Your task to perform on an android device: Open settings on Google Maps Image 0: 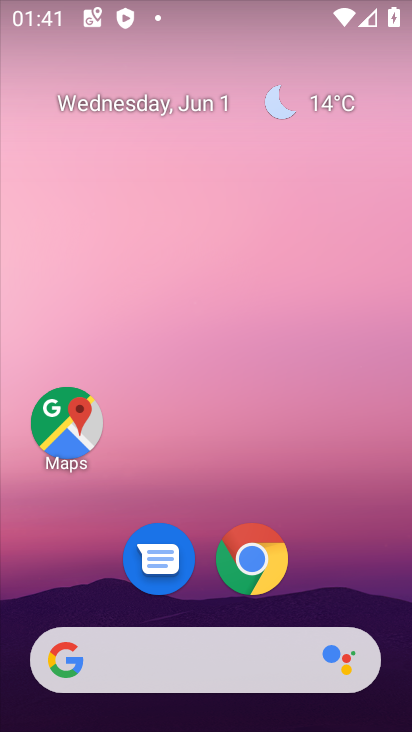
Step 0: click (60, 434)
Your task to perform on an android device: Open settings on Google Maps Image 1: 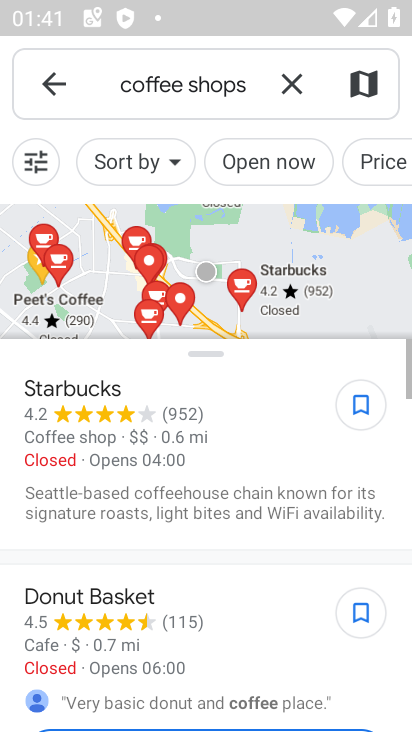
Step 1: click (46, 87)
Your task to perform on an android device: Open settings on Google Maps Image 2: 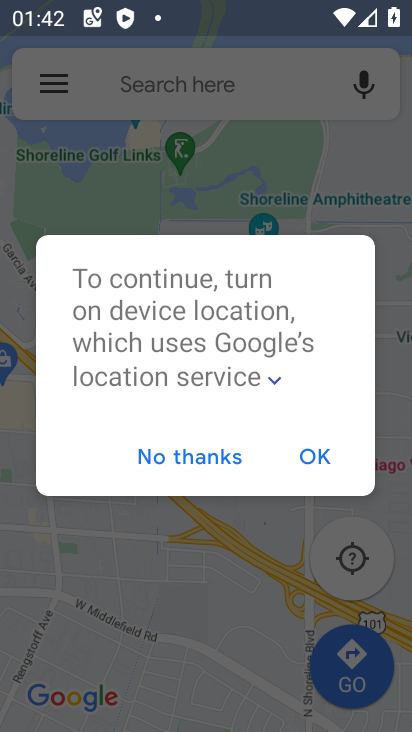
Step 2: click (295, 457)
Your task to perform on an android device: Open settings on Google Maps Image 3: 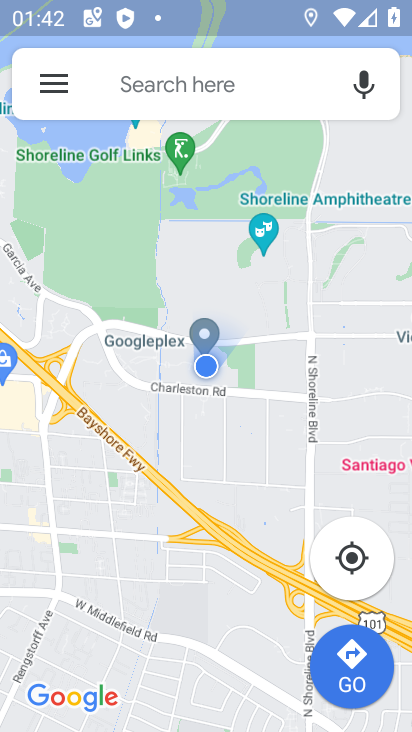
Step 3: click (48, 77)
Your task to perform on an android device: Open settings on Google Maps Image 4: 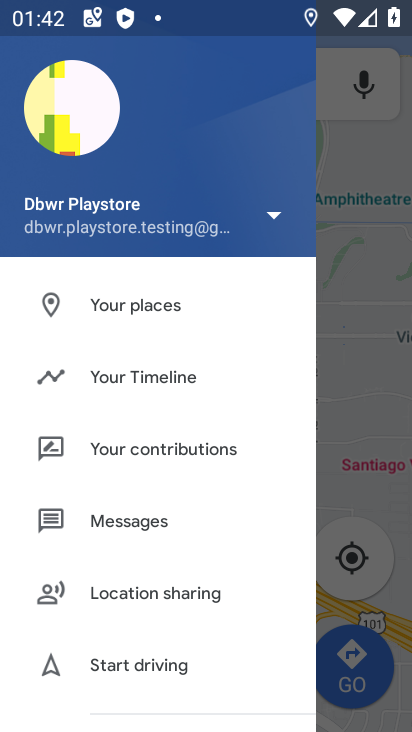
Step 4: drag from (200, 628) to (196, 335)
Your task to perform on an android device: Open settings on Google Maps Image 5: 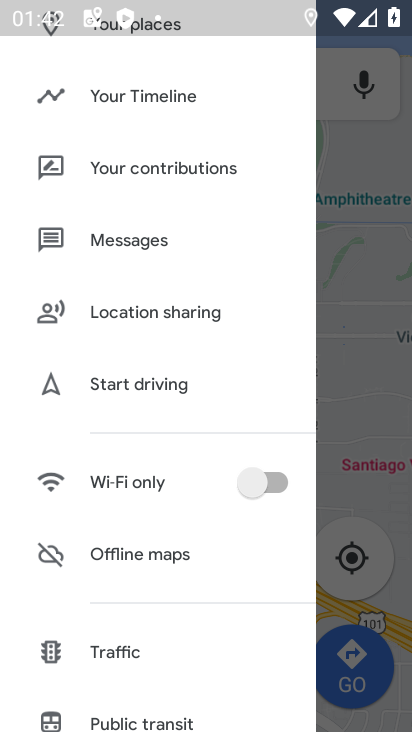
Step 5: drag from (151, 664) to (135, 343)
Your task to perform on an android device: Open settings on Google Maps Image 6: 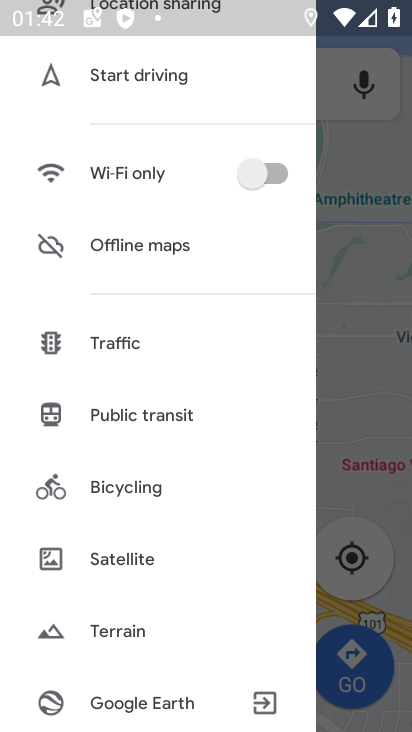
Step 6: drag from (160, 642) to (162, 303)
Your task to perform on an android device: Open settings on Google Maps Image 7: 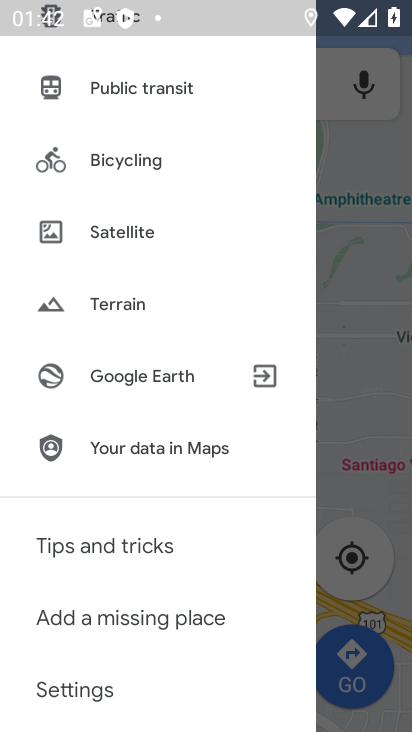
Step 7: click (97, 697)
Your task to perform on an android device: Open settings on Google Maps Image 8: 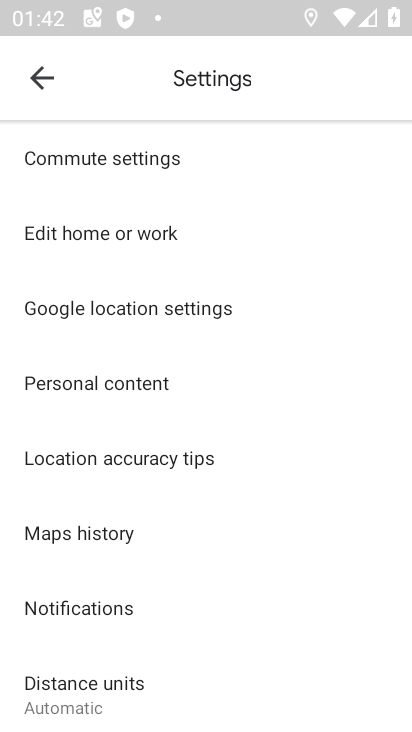
Step 8: task complete